Your task to perform on an android device: Open sound settings Image 0: 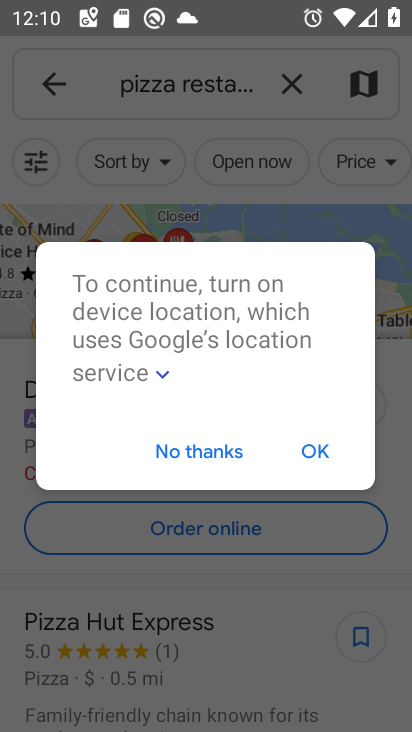
Step 0: click (165, 456)
Your task to perform on an android device: Open sound settings Image 1: 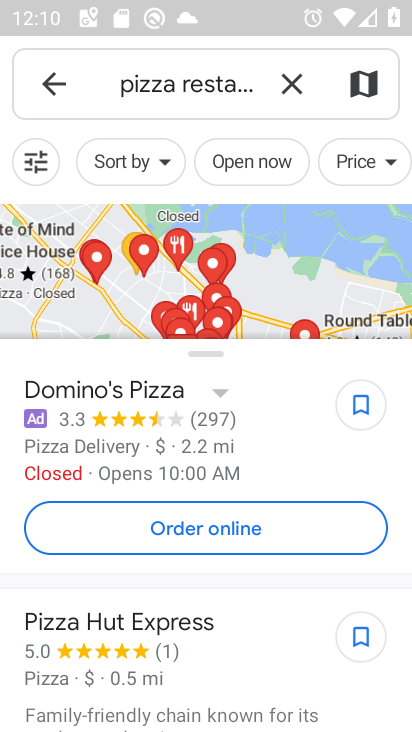
Step 1: press home button
Your task to perform on an android device: Open sound settings Image 2: 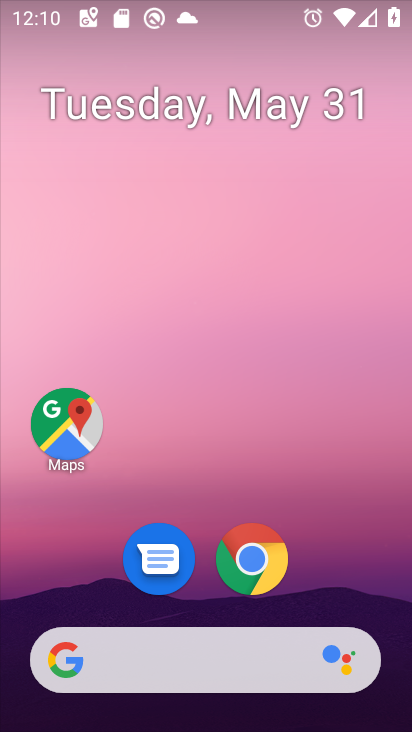
Step 2: drag from (329, 590) to (218, 112)
Your task to perform on an android device: Open sound settings Image 3: 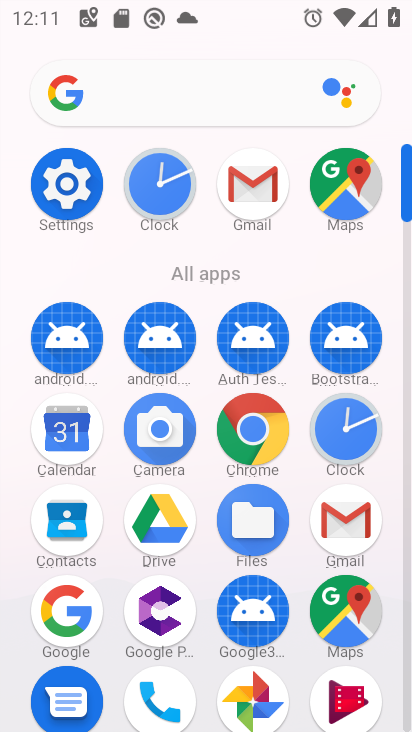
Step 3: click (86, 189)
Your task to perform on an android device: Open sound settings Image 4: 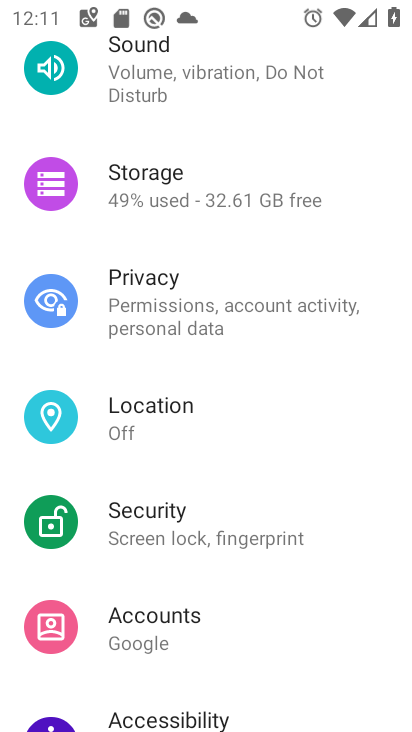
Step 4: drag from (218, 176) to (265, 432)
Your task to perform on an android device: Open sound settings Image 5: 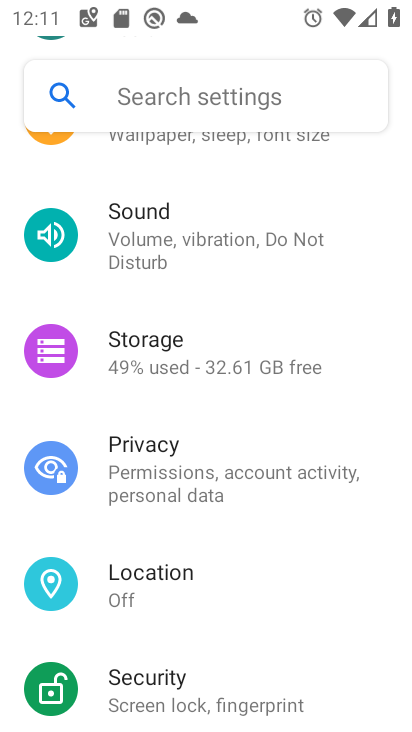
Step 5: click (215, 255)
Your task to perform on an android device: Open sound settings Image 6: 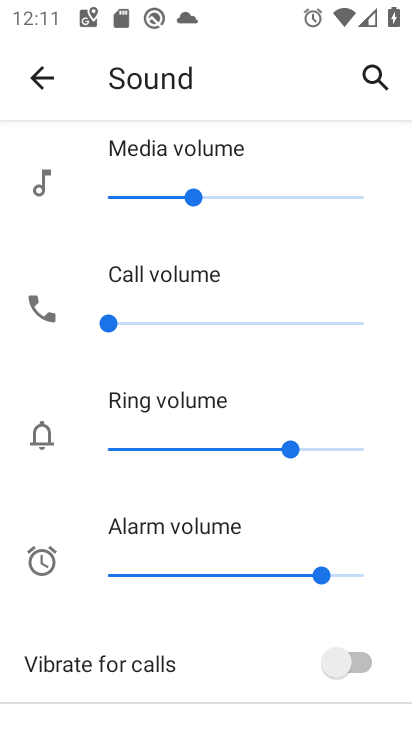
Step 6: task complete